Your task to perform on an android device: Go to notification settings Image 0: 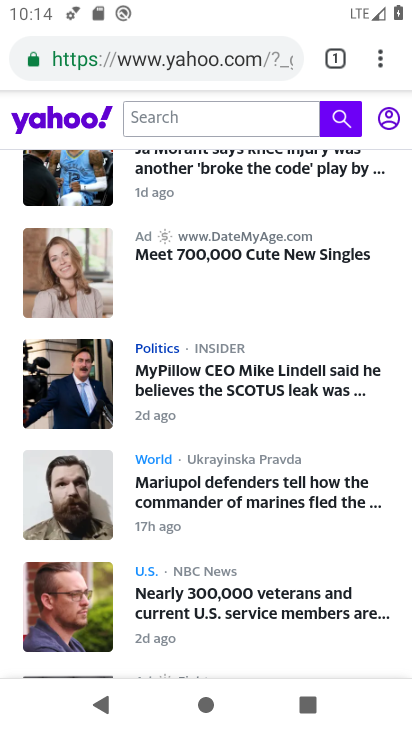
Step 0: press home button
Your task to perform on an android device: Go to notification settings Image 1: 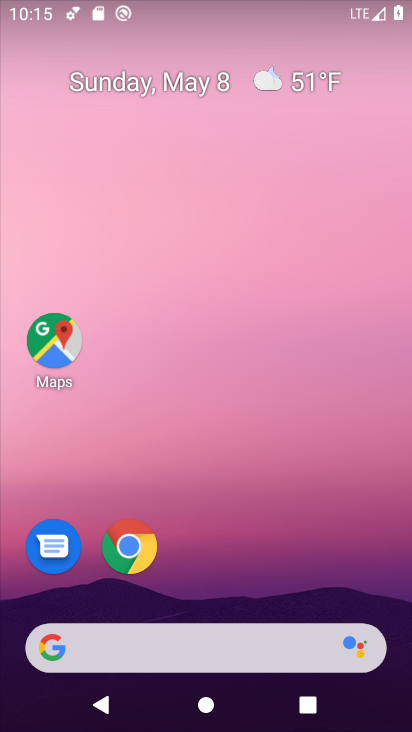
Step 1: drag from (390, 615) to (343, 25)
Your task to perform on an android device: Go to notification settings Image 2: 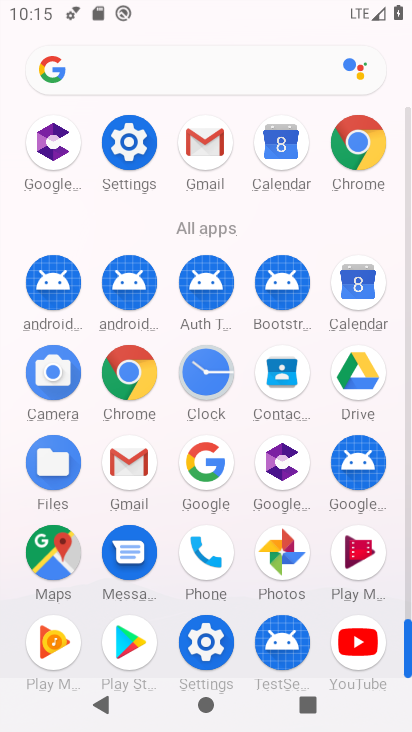
Step 2: click (204, 642)
Your task to perform on an android device: Go to notification settings Image 3: 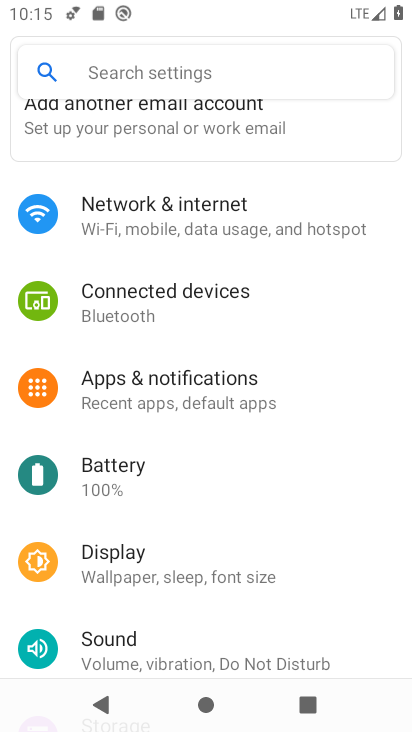
Step 3: click (152, 365)
Your task to perform on an android device: Go to notification settings Image 4: 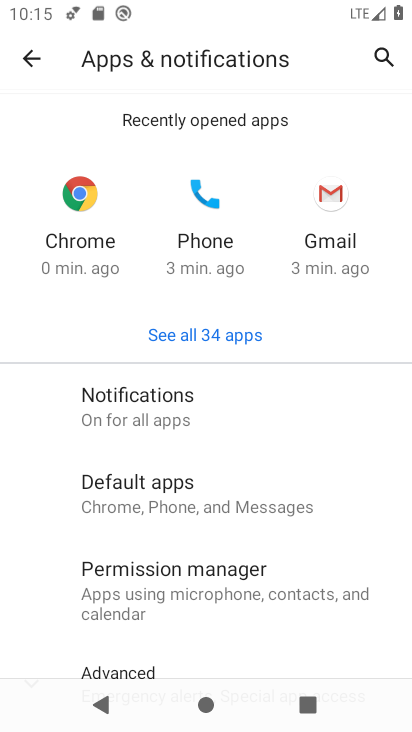
Step 4: click (123, 394)
Your task to perform on an android device: Go to notification settings Image 5: 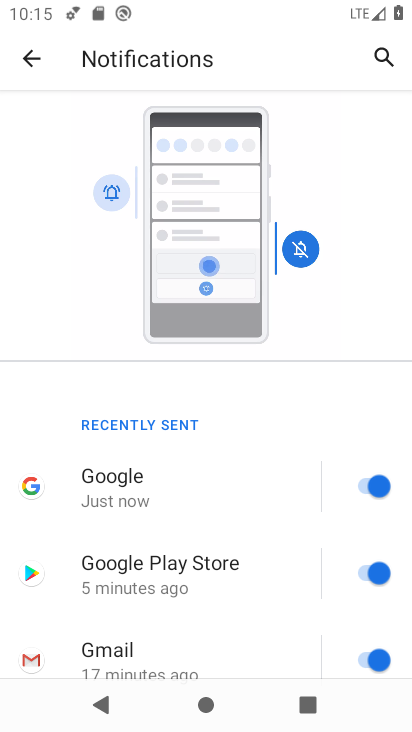
Step 5: drag from (319, 649) to (231, 93)
Your task to perform on an android device: Go to notification settings Image 6: 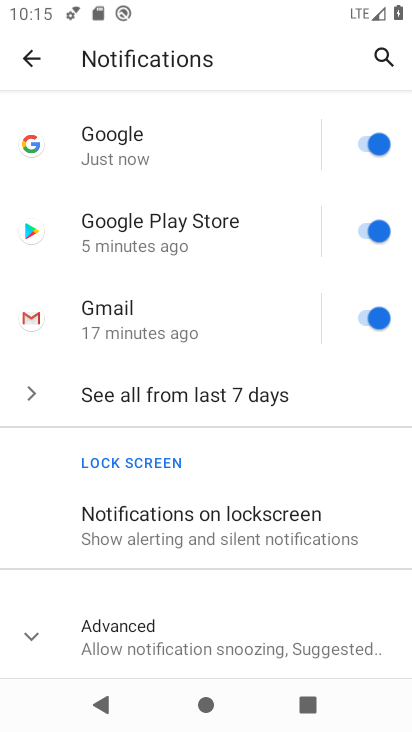
Step 6: click (26, 635)
Your task to perform on an android device: Go to notification settings Image 7: 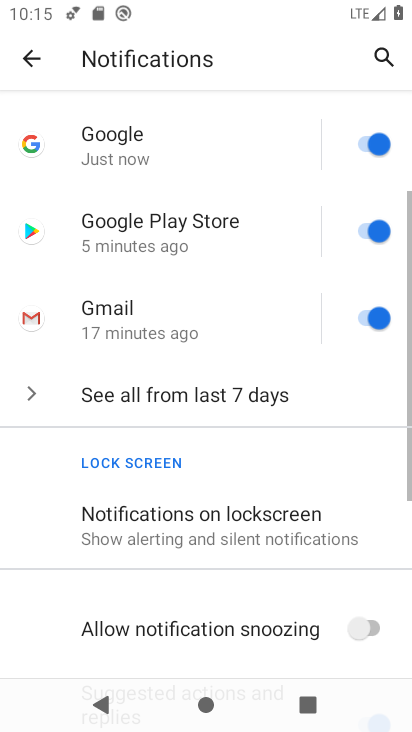
Step 7: task complete